Your task to perform on an android device: toggle location history Image 0: 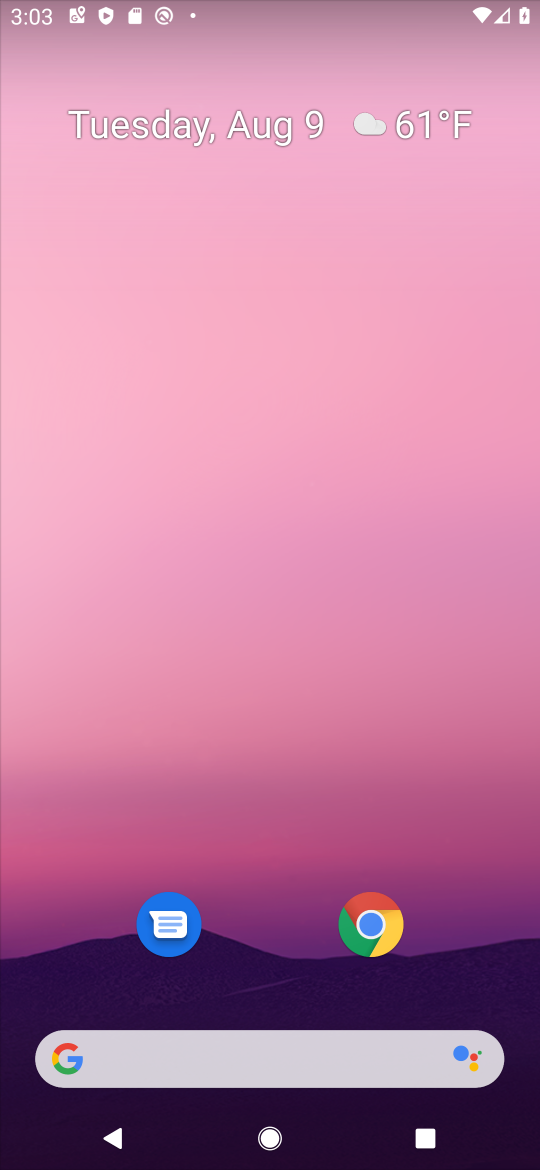
Step 0: drag from (295, 860) to (506, 46)
Your task to perform on an android device: toggle location history Image 1: 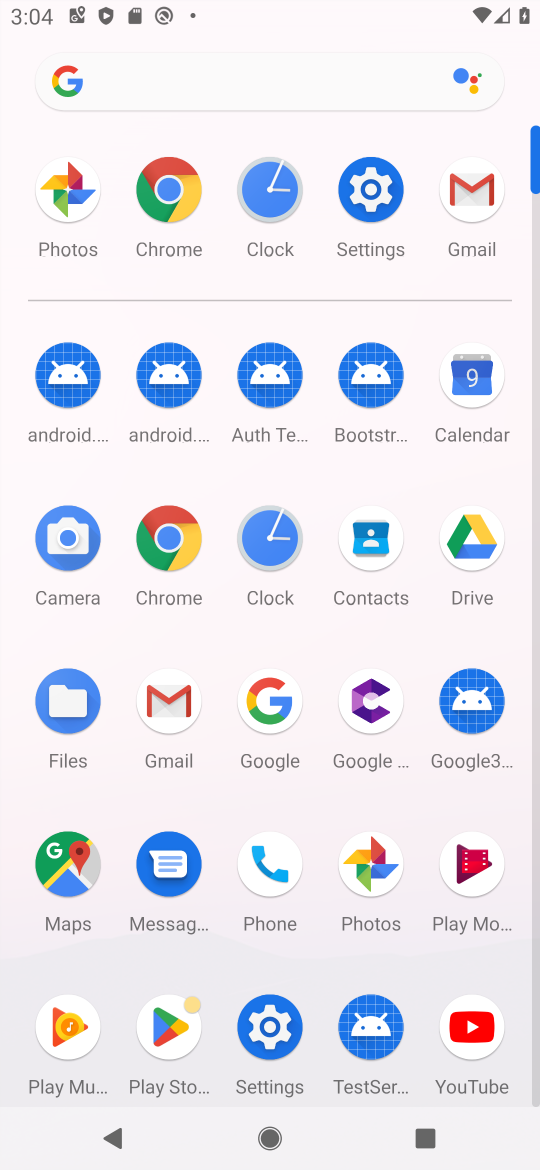
Step 1: click (374, 190)
Your task to perform on an android device: toggle location history Image 2: 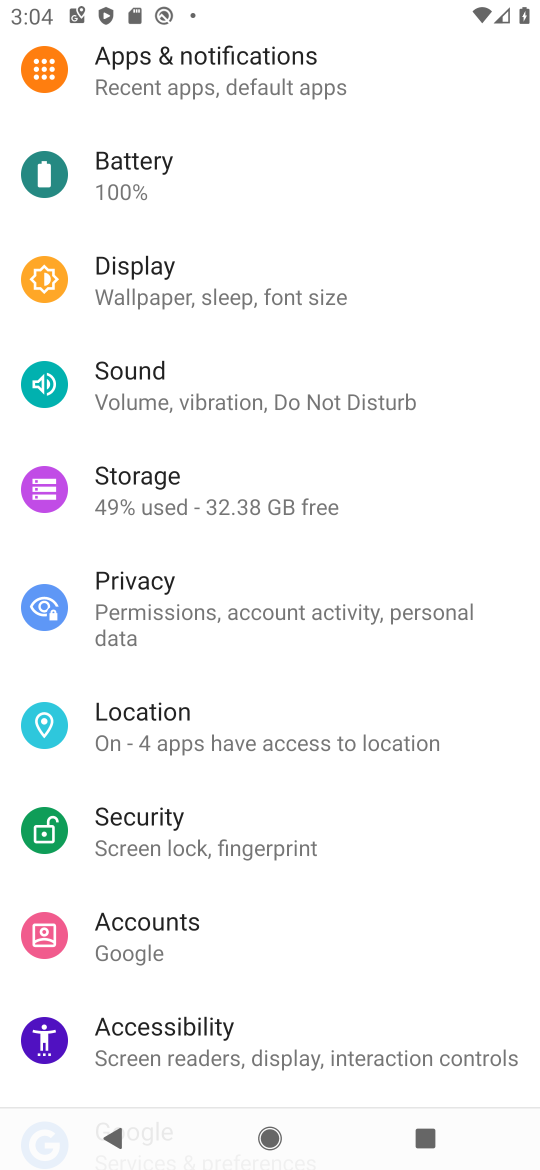
Step 2: click (256, 723)
Your task to perform on an android device: toggle location history Image 3: 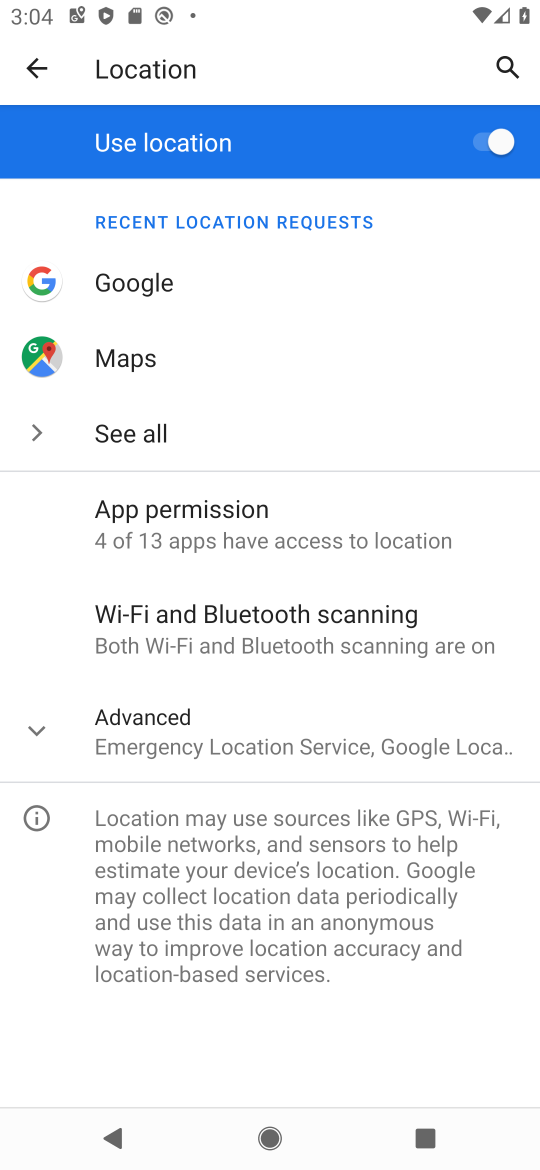
Step 3: click (38, 726)
Your task to perform on an android device: toggle location history Image 4: 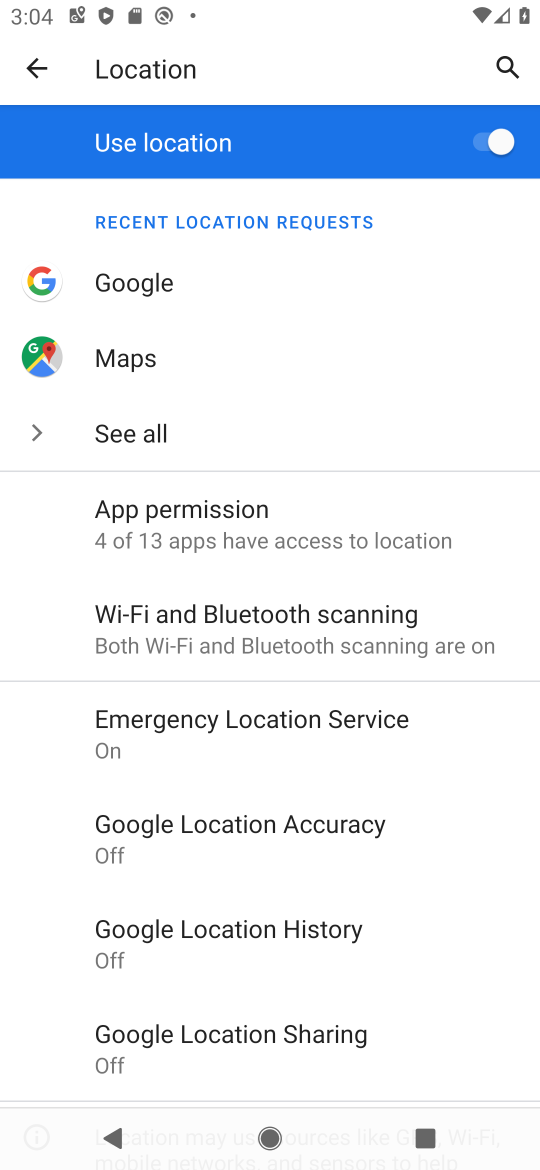
Step 4: click (207, 932)
Your task to perform on an android device: toggle location history Image 5: 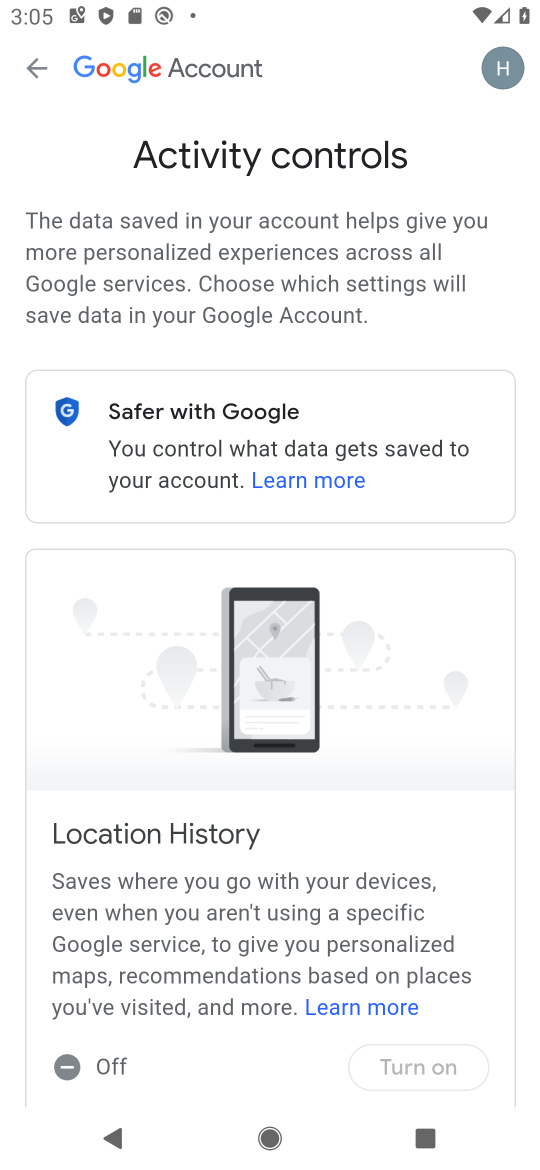
Step 5: click (410, 1060)
Your task to perform on an android device: toggle location history Image 6: 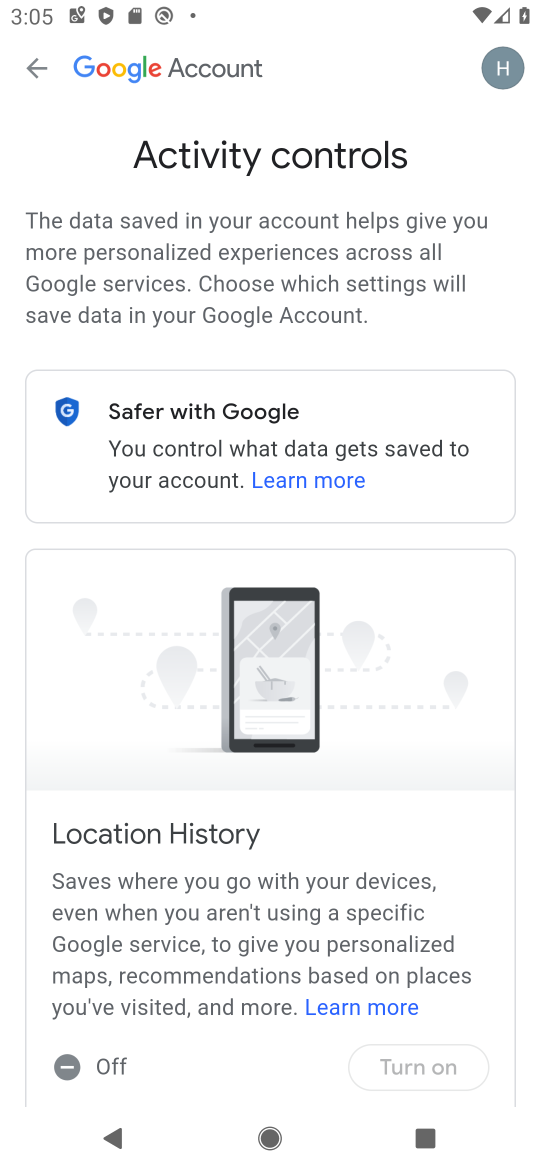
Step 6: task complete